Your task to perform on an android device: toggle translation in the chrome app Image 0: 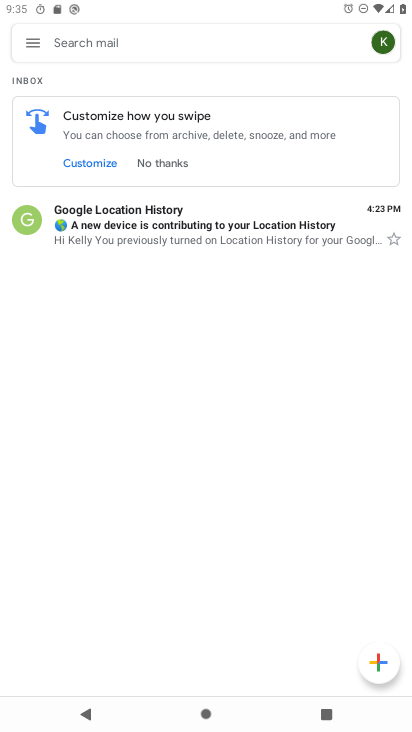
Step 0: press home button
Your task to perform on an android device: toggle translation in the chrome app Image 1: 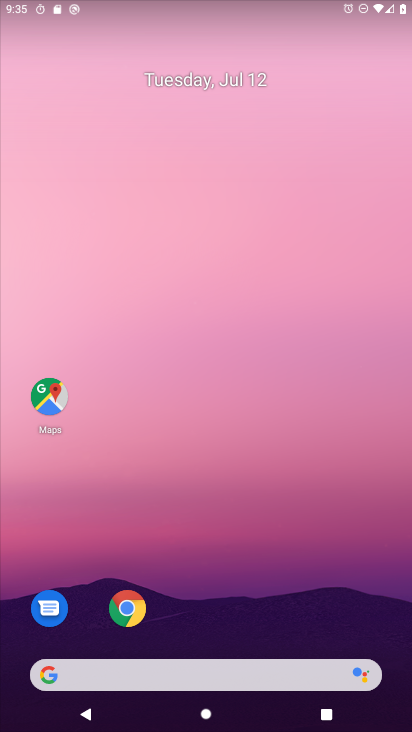
Step 1: click (137, 603)
Your task to perform on an android device: toggle translation in the chrome app Image 2: 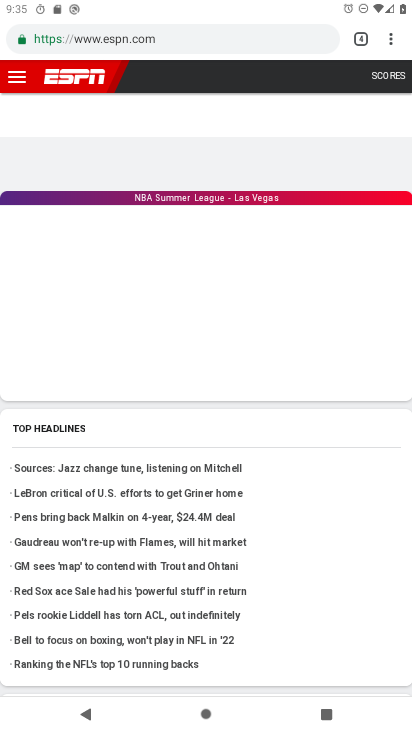
Step 2: click (389, 50)
Your task to perform on an android device: toggle translation in the chrome app Image 3: 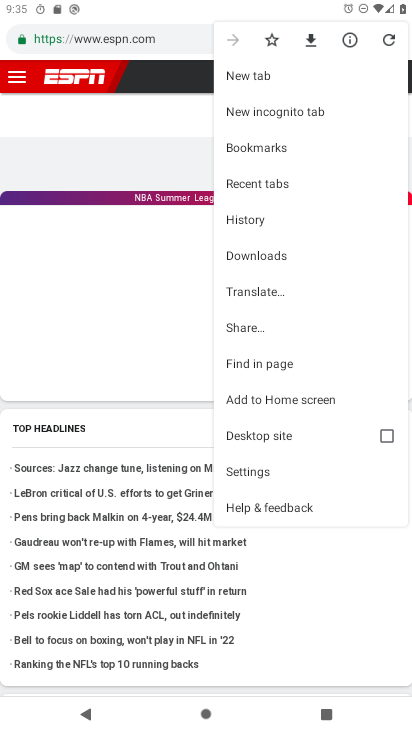
Step 3: click (244, 482)
Your task to perform on an android device: toggle translation in the chrome app Image 4: 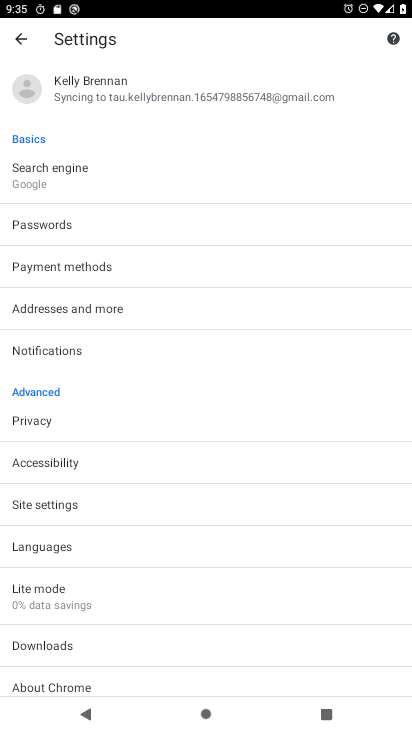
Step 4: click (46, 556)
Your task to perform on an android device: toggle translation in the chrome app Image 5: 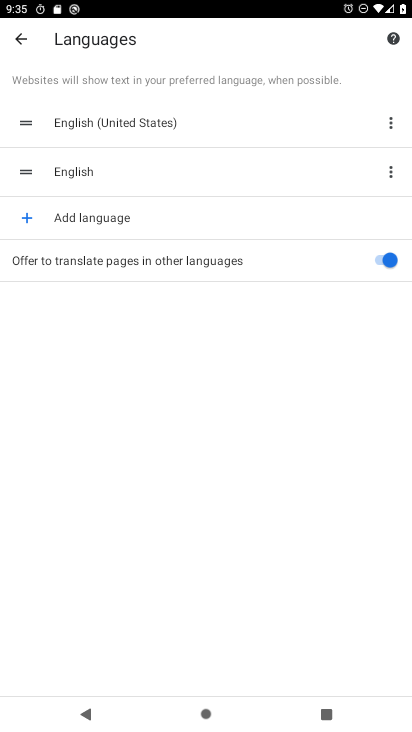
Step 5: click (385, 264)
Your task to perform on an android device: toggle translation in the chrome app Image 6: 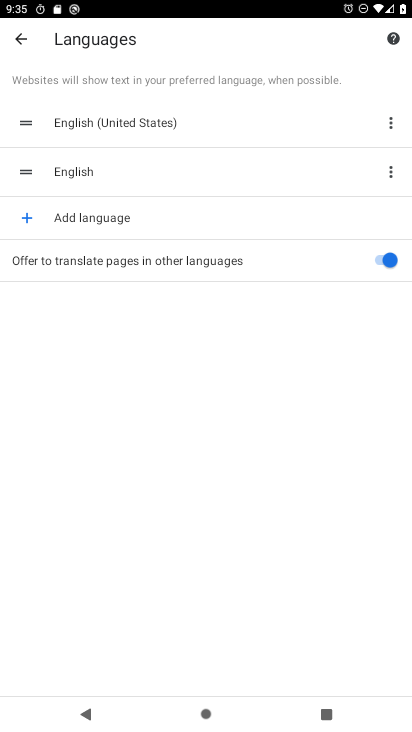
Step 6: click (385, 264)
Your task to perform on an android device: toggle translation in the chrome app Image 7: 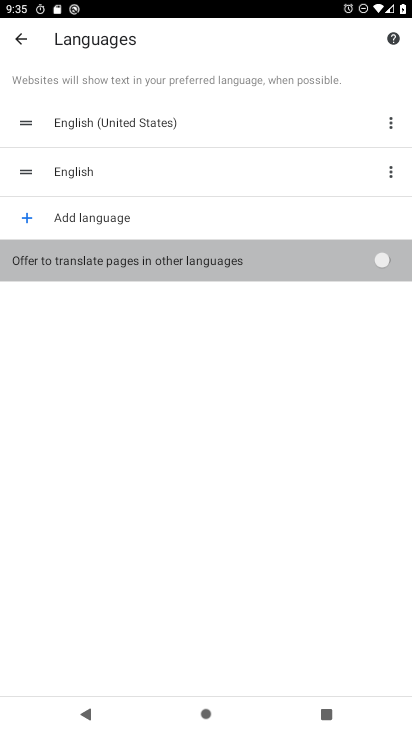
Step 7: click (385, 264)
Your task to perform on an android device: toggle translation in the chrome app Image 8: 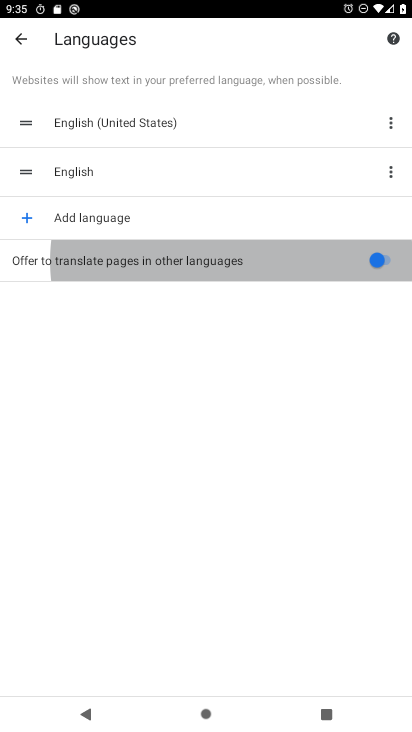
Step 8: click (385, 264)
Your task to perform on an android device: toggle translation in the chrome app Image 9: 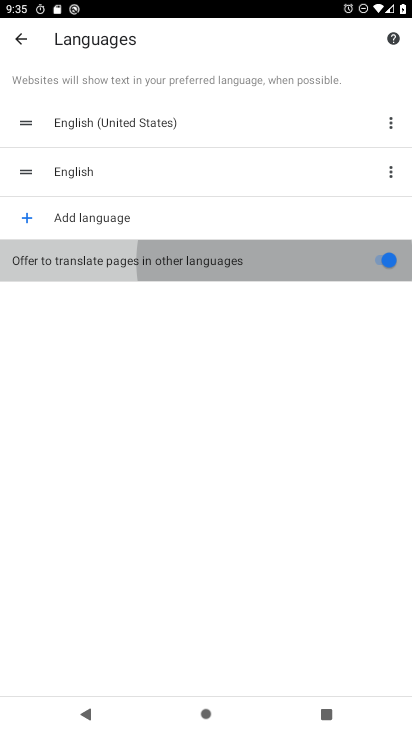
Step 9: click (385, 264)
Your task to perform on an android device: toggle translation in the chrome app Image 10: 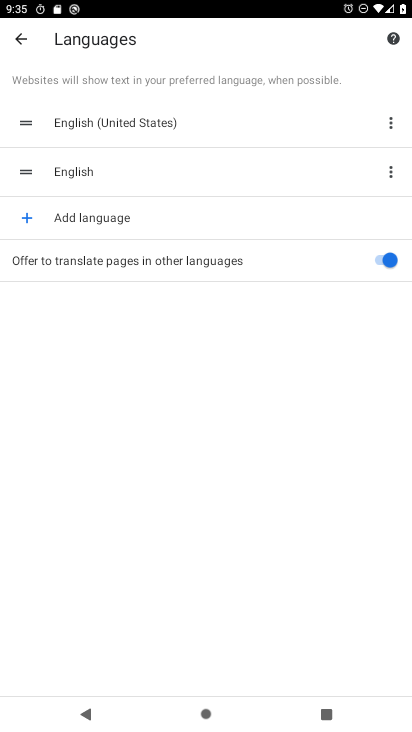
Step 10: click (385, 264)
Your task to perform on an android device: toggle translation in the chrome app Image 11: 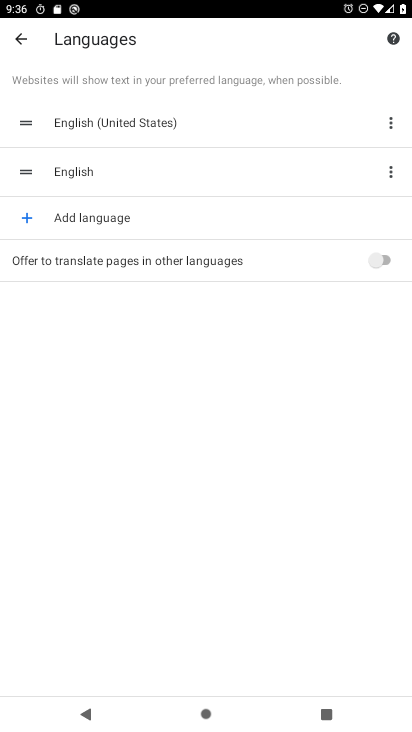
Step 11: task complete